Your task to perform on an android device: turn off sleep mode Image 0: 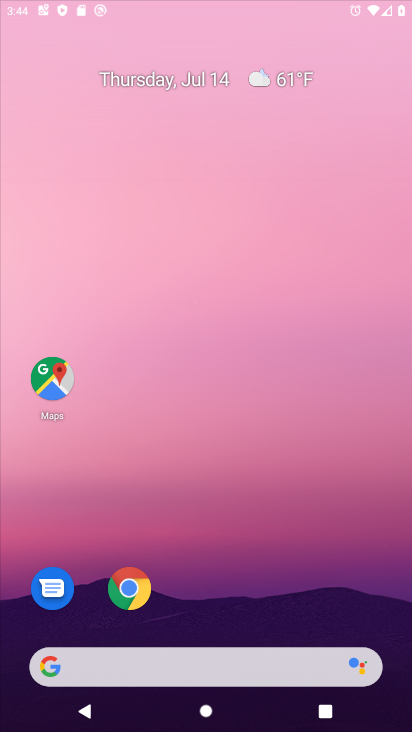
Step 0: press home button
Your task to perform on an android device: turn off sleep mode Image 1: 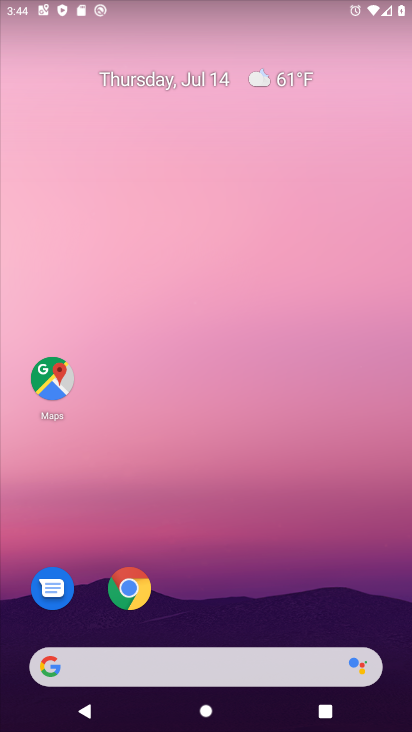
Step 1: drag from (261, 590) to (293, 12)
Your task to perform on an android device: turn off sleep mode Image 2: 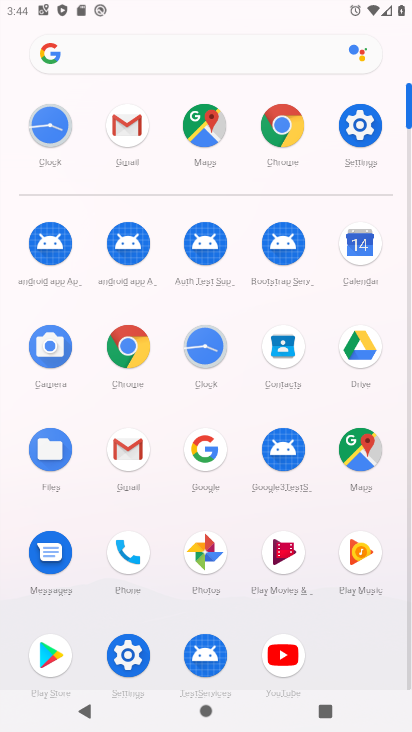
Step 2: click (362, 121)
Your task to perform on an android device: turn off sleep mode Image 3: 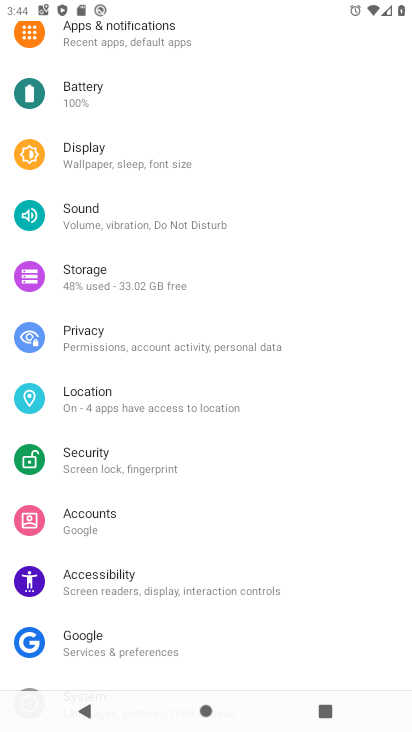
Step 3: click (80, 148)
Your task to perform on an android device: turn off sleep mode Image 4: 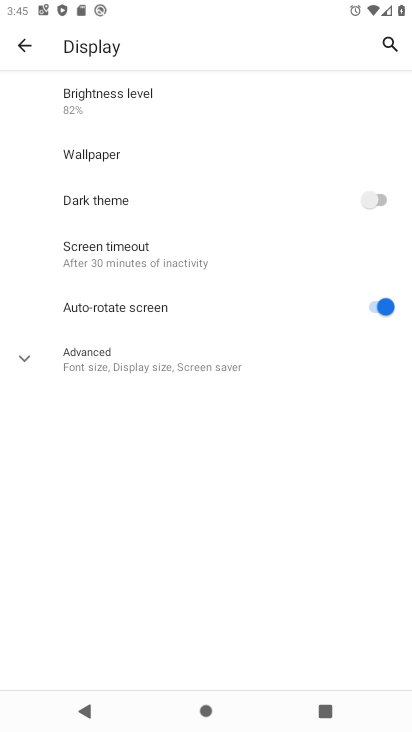
Step 4: click (55, 362)
Your task to perform on an android device: turn off sleep mode Image 5: 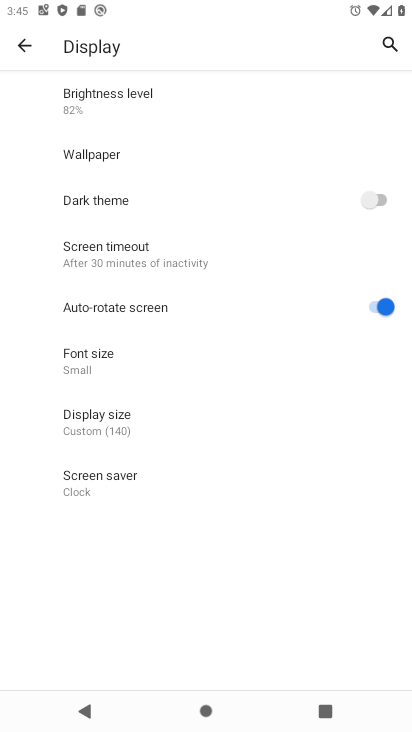
Step 5: task complete